Your task to perform on an android device: change notification settings in the gmail app Image 0: 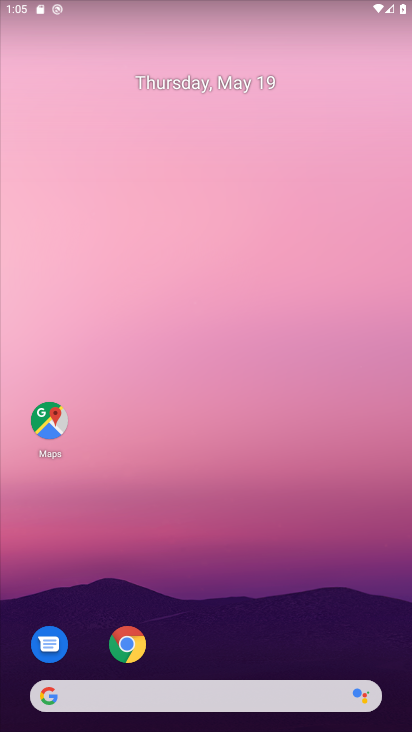
Step 0: drag from (214, 615) to (233, 146)
Your task to perform on an android device: change notification settings in the gmail app Image 1: 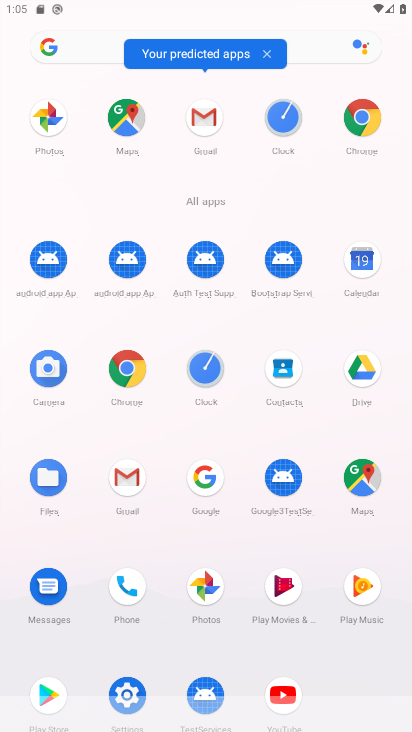
Step 1: click (204, 120)
Your task to perform on an android device: change notification settings in the gmail app Image 2: 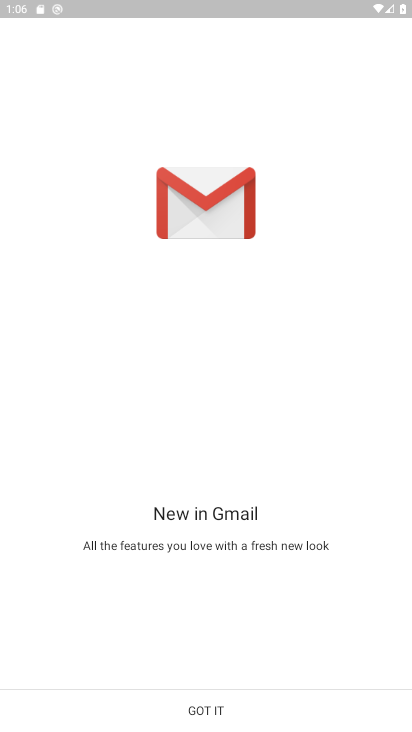
Step 2: click (198, 712)
Your task to perform on an android device: change notification settings in the gmail app Image 3: 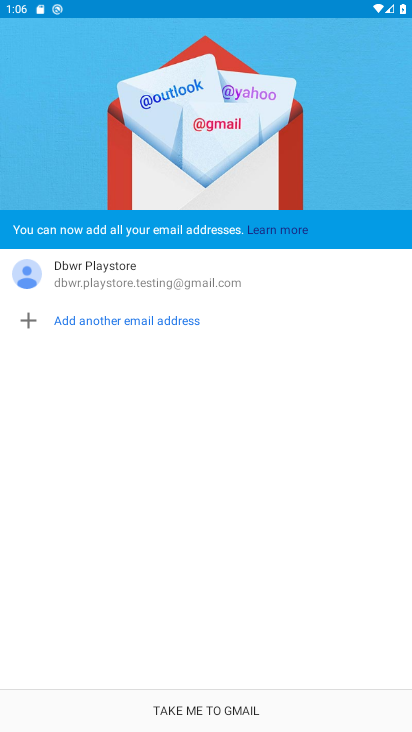
Step 3: click (227, 703)
Your task to perform on an android device: change notification settings in the gmail app Image 4: 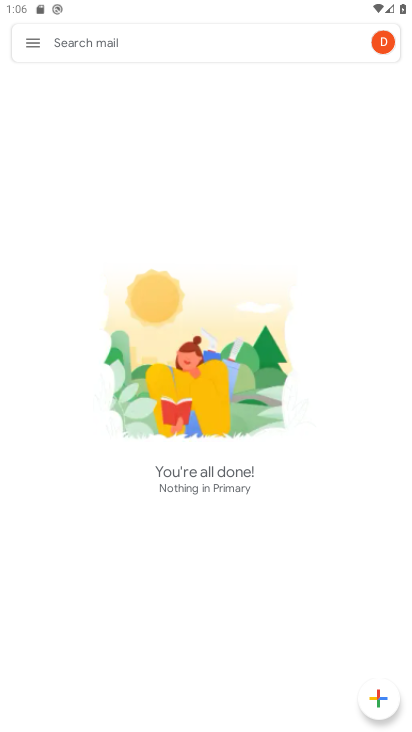
Step 4: click (36, 43)
Your task to perform on an android device: change notification settings in the gmail app Image 5: 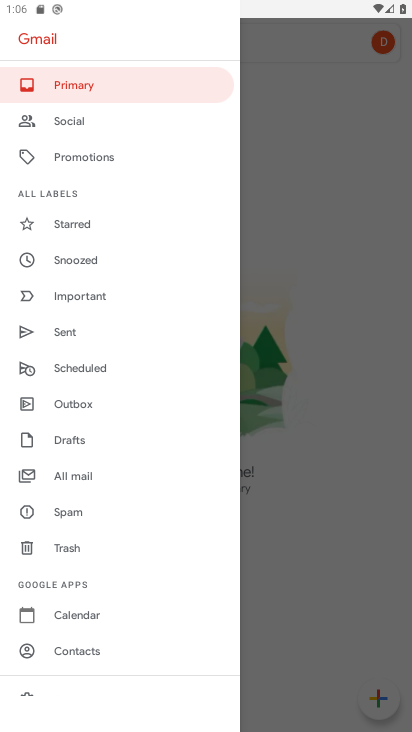
Step 5: drag from (84, 647) to (144, 173)
Your task to perform on an android device: change notification settings in the gmail app Image 6: 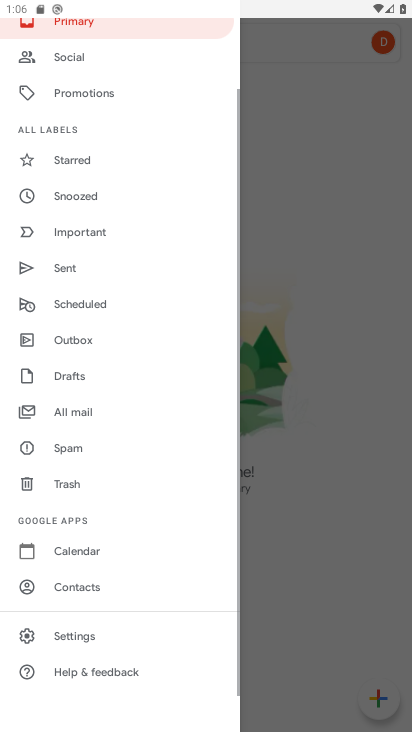
Step 6: click (70, 635)
Your task to perform on an android device: change notification settings in the gmail app Image 7: 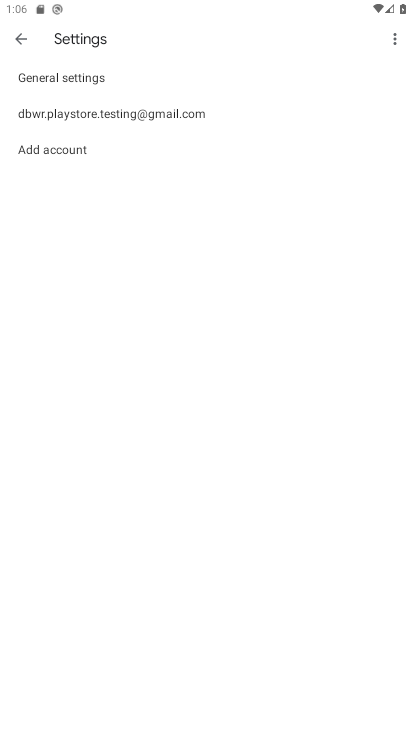
Step 7: click (121, 125)
Your task to perform on an android device: change notification settings in the gmail app Image 8: 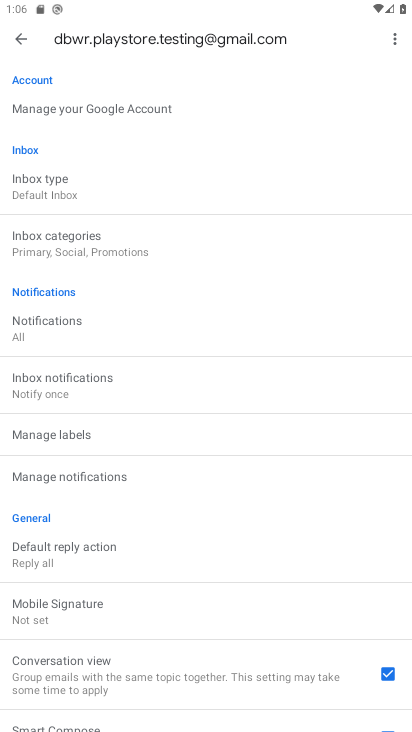
Step 8: click (85, 469)
Your task to perform on an android device: change notification settings in the gmail app Image 9: 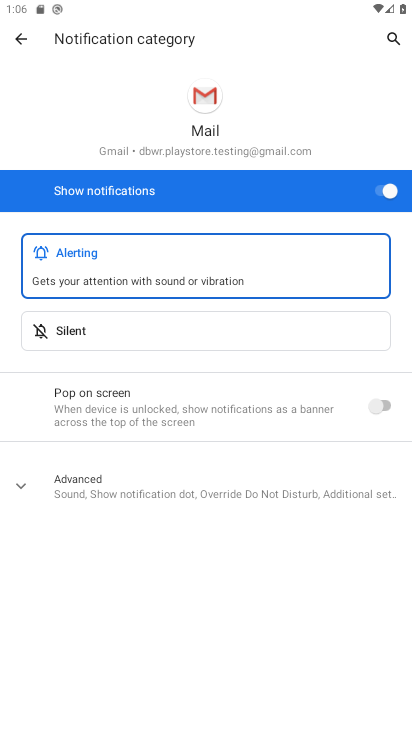
Step 9: click (363, 181)
Your task to perform on an android device: change notification settings in the gmail app Image 10: 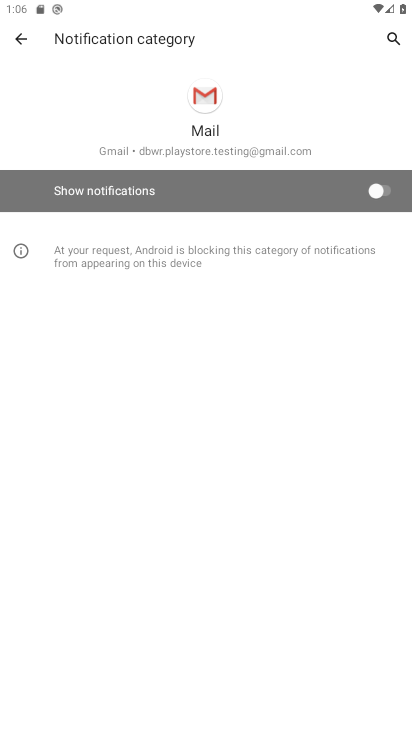
Step 10: task complete